Your task to perform on an android device: turn on data saver in the chrome app Image 0: 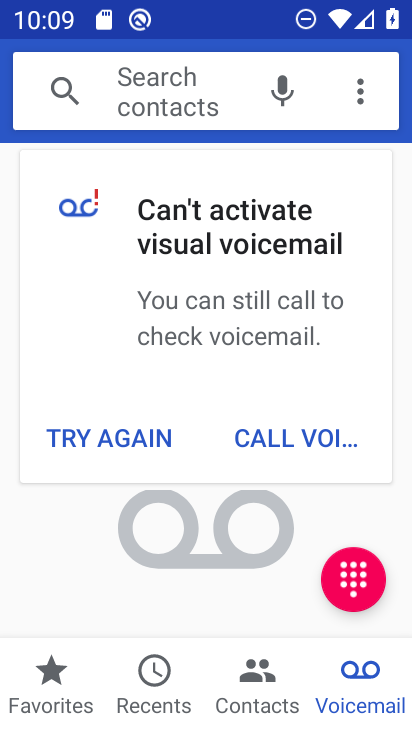
Step 0: press home button
Your task to perform on an android device: turn on data saver in the chrome app Image 1: 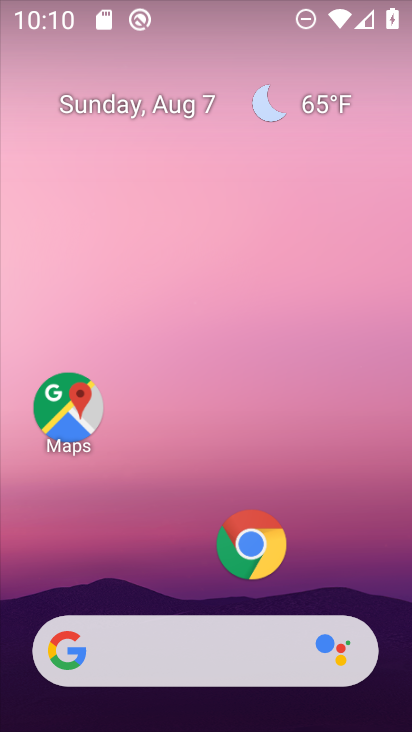
Step 1: drag from (243, 624) to (302, 60)
Your task to perform on an android device: turn on data saver in the chrome app Image 2: 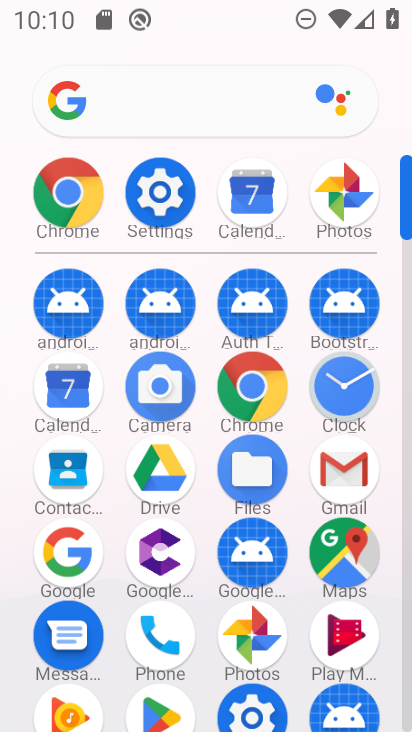
Step 2: click (253, 389)
Your task to perform on an android device: turn on data saver in the chrome app Image 3: 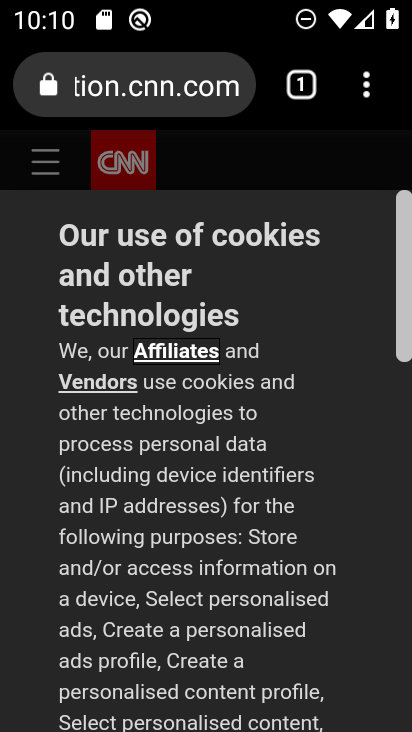
Step 3: drag from (362, 95) to (96, 589)
Your task to perform on an android device: turn on data saver in the chrome app Image 4: 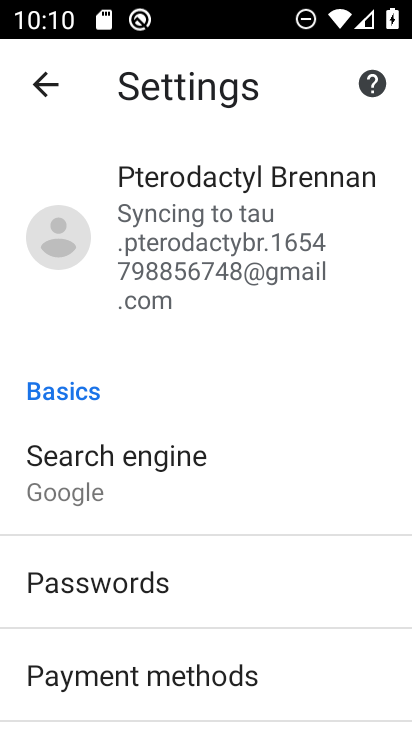
Step 4: drag from (136, 539) to (164, 16)
Your task to perform on an android device: turn on data saver in the chrome app Image 5: 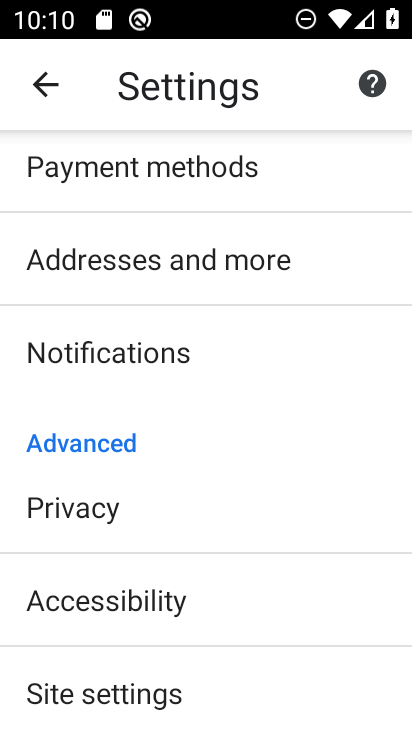
Step 5: drag from (183, 598) to (153, 3)
Your task to perform on an android device: turn on data saver in the chrome app Image 6: 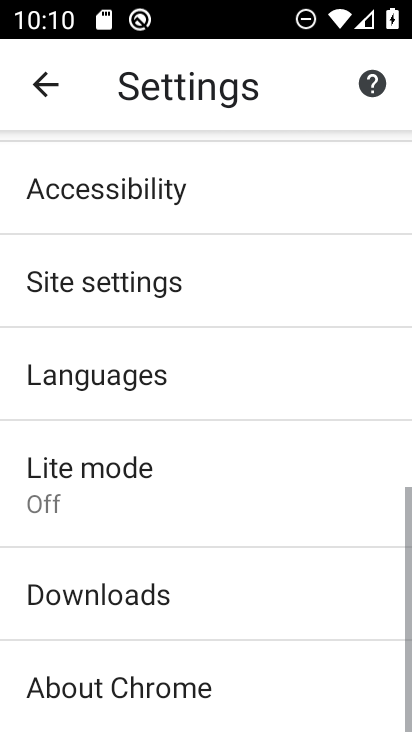
Step 6: click (88, 500)
Your task to perform on an android device: turn on data saver in the chrome app Image 7: 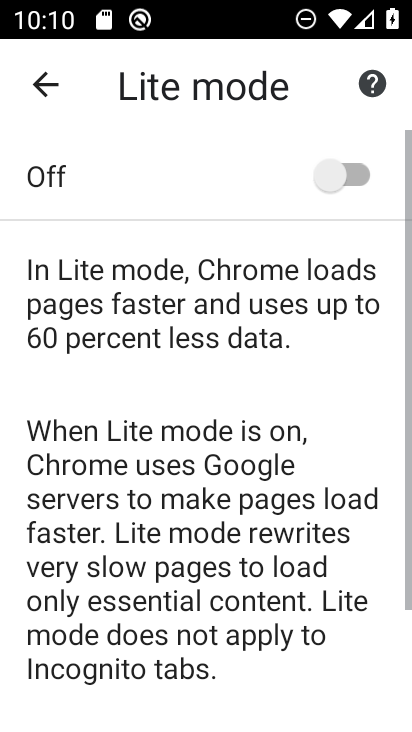
Step 7: click (326, 169)
Your task to perform on an android device: turn on data saver in the chrome app Image 8: 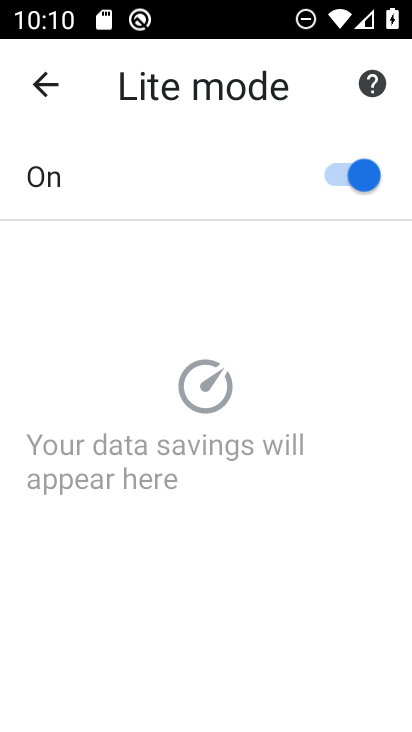
Step 8: task complete